Your task to perform on an android device: turn on javascript in the chrome app Image 0: 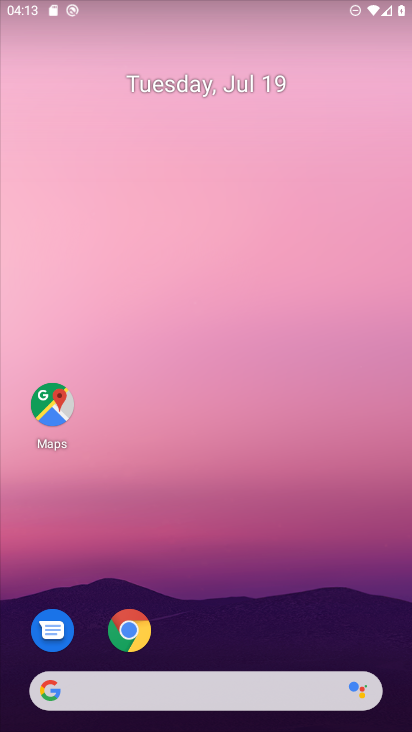
Step 0: click (114, 196)
Your task to perform on an android device: turn on javascript in the chrome app Image 1: 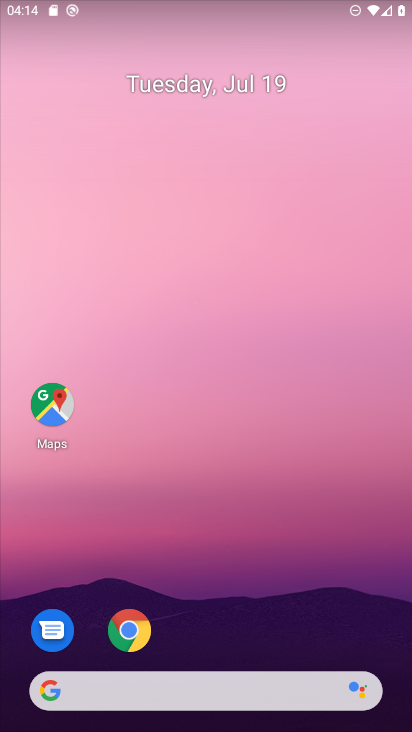
Step 1: drag from (171, 624) to (155, 181)
Your task to perform on an android device: turn on javascript in the chrome app Image 2: 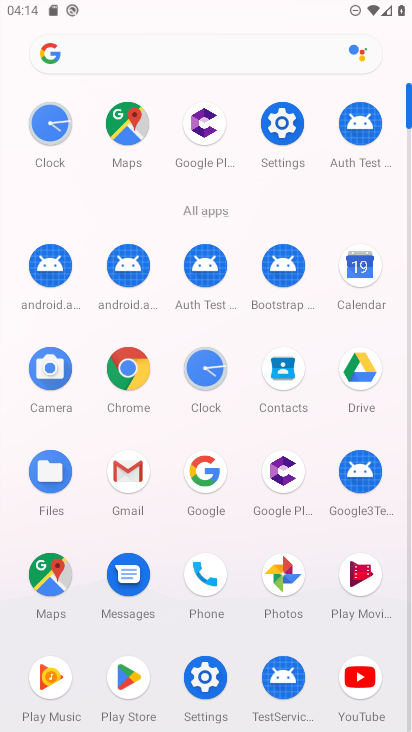
Step 2: click (121, 365)
Your task to perform on an android device: turn on javascript in the chrome app Image 3: 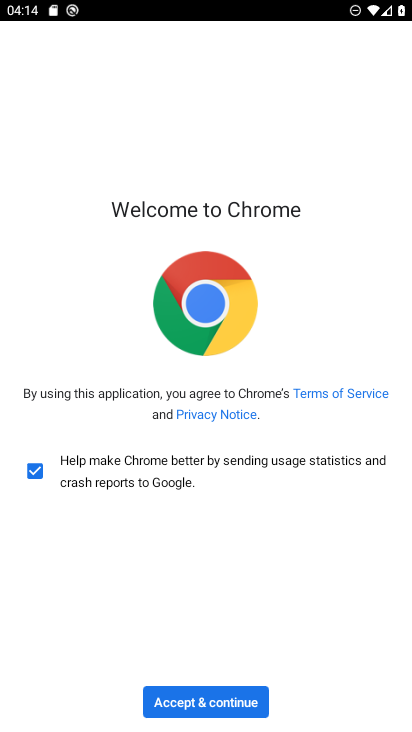
Step 3: click (215, 698)
Your task to perform on an android device: turn on javascript in the chrome app Image 4: 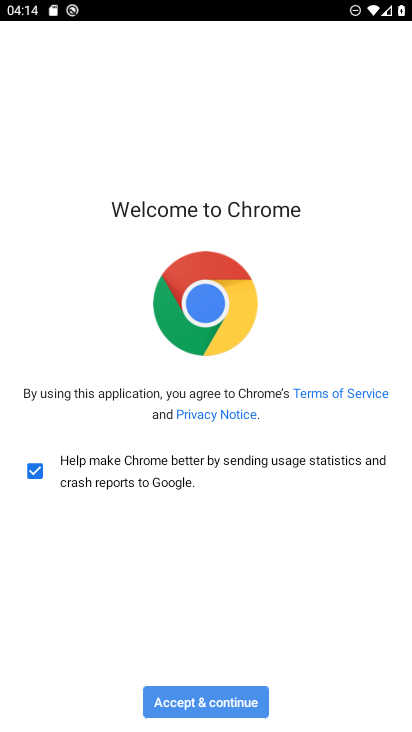
Step 4: click (215, 698)
Your task to perform on an android device: turn on javascript in the chrome app Image 5: 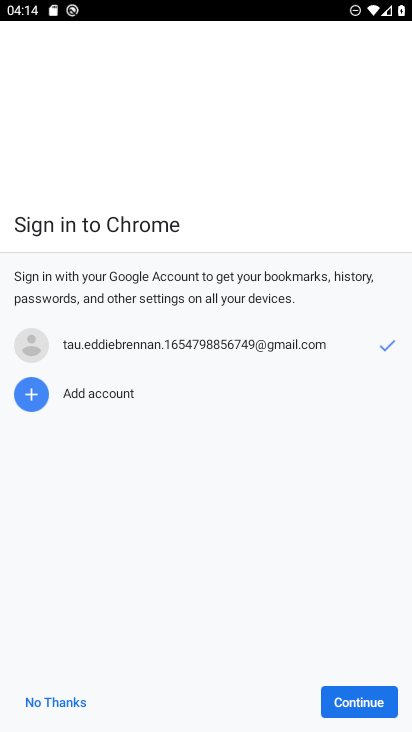
Step 5: click (215, 698)
Your task to perform on an android device: turn on javascript in the chrome app Image 6: 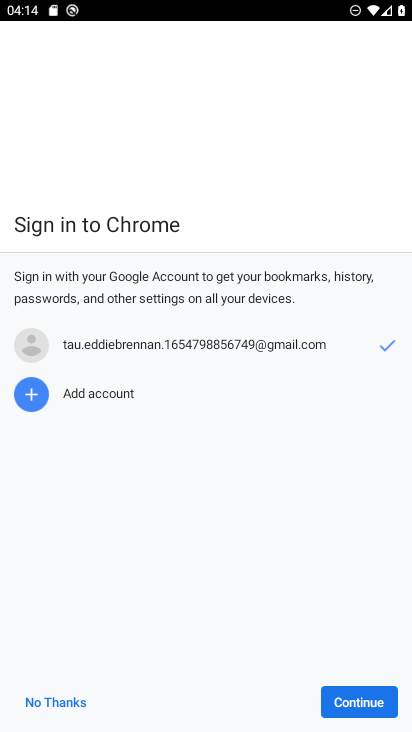
Step 6: click (215, 698)
Your task to perform on an android device: turn on javascript in the chrome app Image 7: 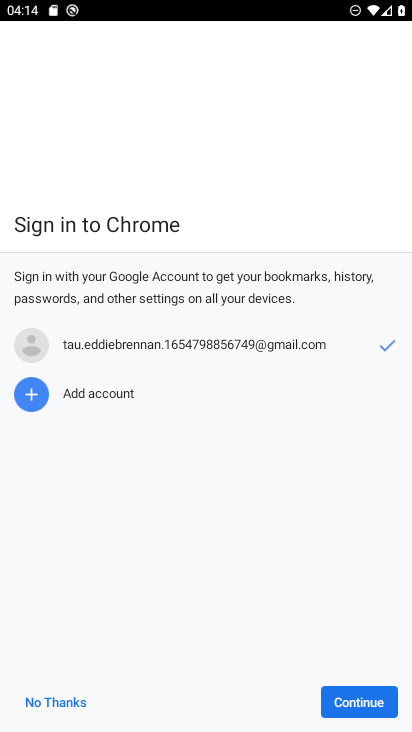
Step 7: click (392, 688)
Your task to perform on an android device: turn on javascript in the chrome app Image 8: 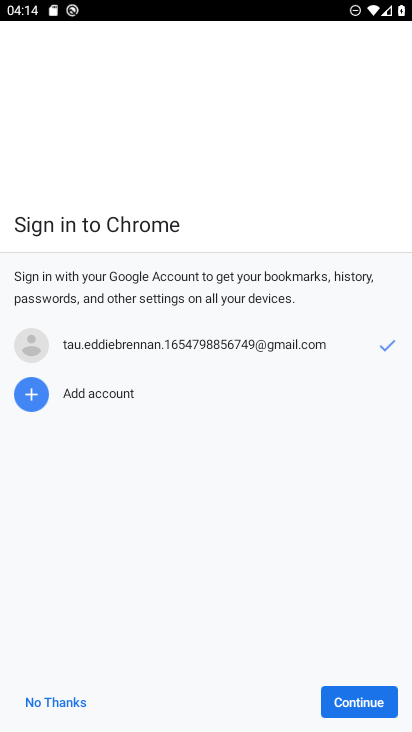
Step 8: click (383, 699)
Your task to perform on an android device: turn on javascript in the chrome app Image 9: 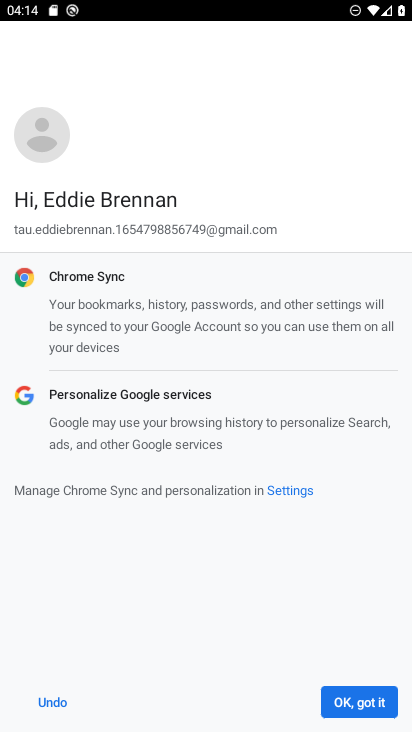
Step 9: click (376, 703)
Your task to perform on an android device: turn on javascript in the chrome app Image 10: 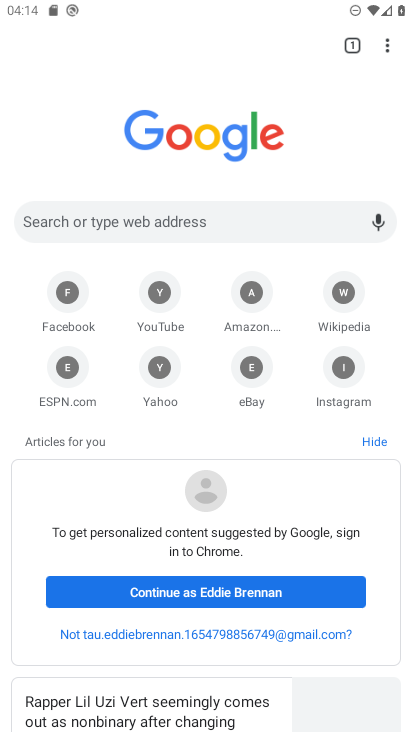
Step 10: drag from (381, 49) to (208, 382)
Your task to perform on an android device: turn on javascript in the chrome app Image 11: 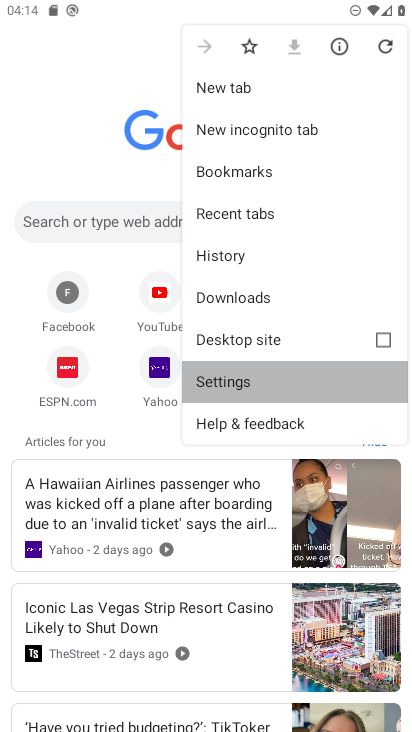
Step 11: click (205, 385)
Your task to perform on an android device: turn on javascript in the chrome app Image 12: 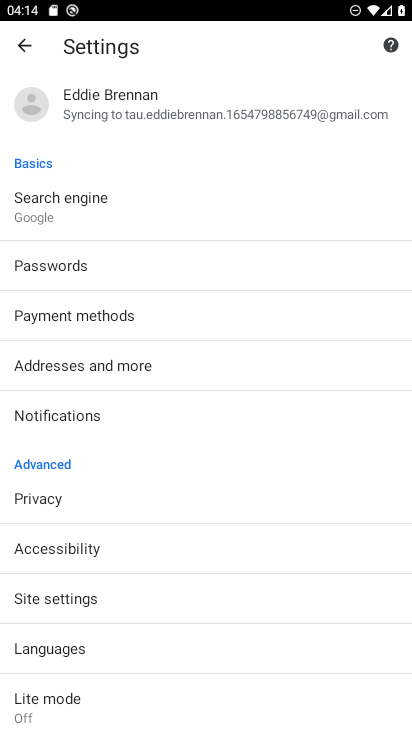
Step 12: drag from (62, 674) to (39, 398)
Your task to perform on an android device: turn on javascript in the chrome app Image 13: 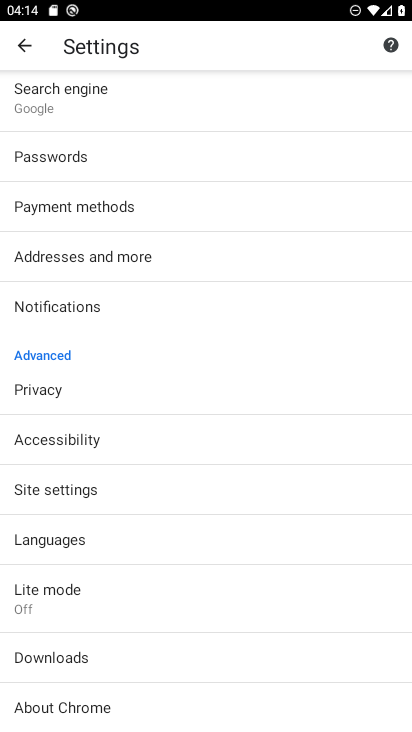
Step 13: click (45, 481)
Your task to perform on an android device: turn on javascript in the chrome app Image 14: 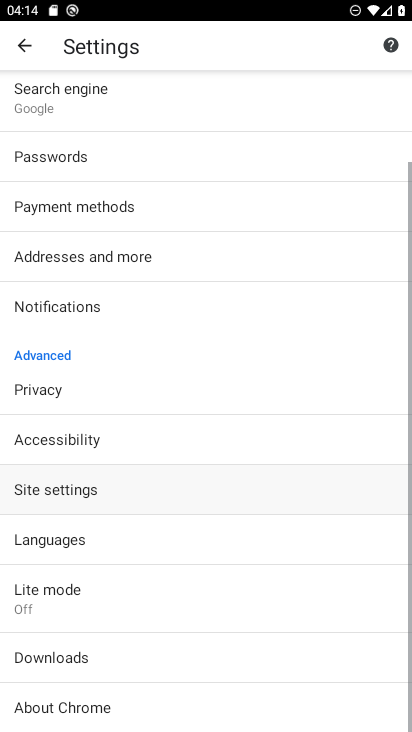
Step 14: click (63, 487)
Your task to perform on an android device: turn on javascript in the chrome app Image 15: 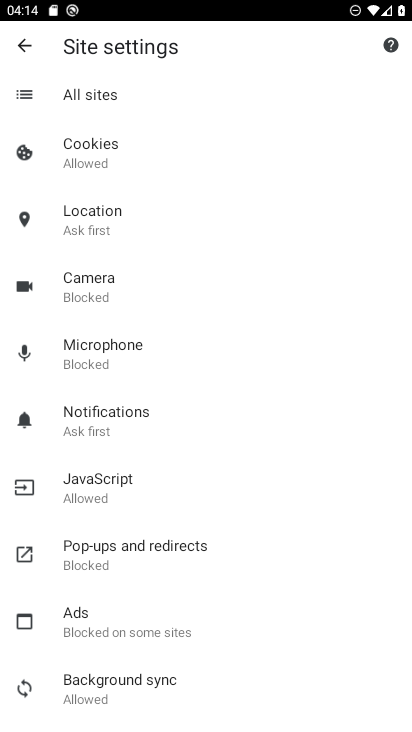
Step 15: click (87, 490)
Your task to perform on an android device: turn on javascript in the chrome app Image 16: 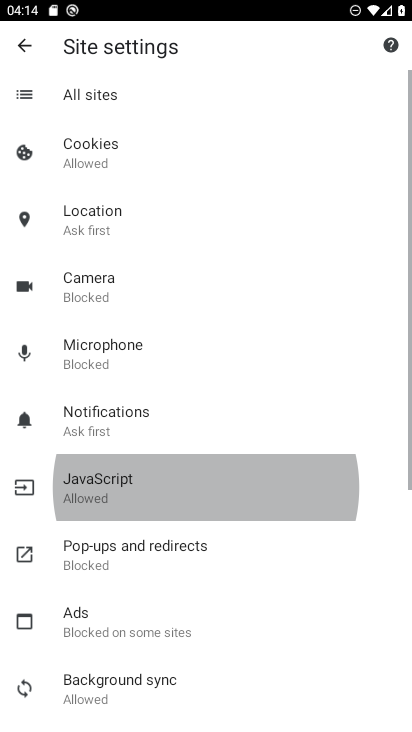
Step 16: click (87, 490)
Your task to perform on an android device: turn on javascript in the chrome app Image 17: 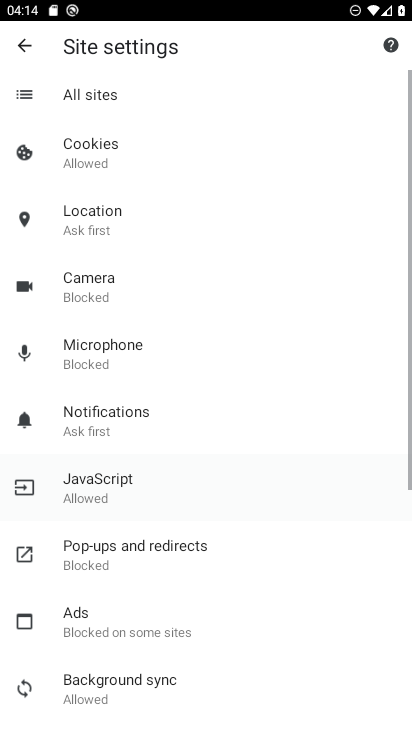
Step 17: click (90, 485)
Your task to perform on an android device: turn on javascript in the chrome app Image 18: 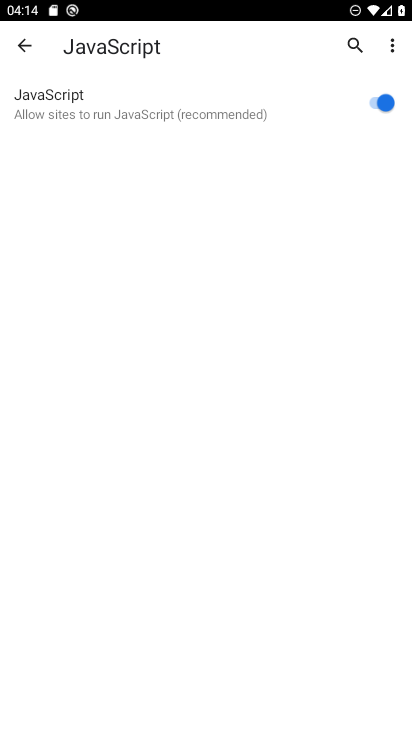
Step 18: task complete